Your task to perform on an android device: change notification settings in the gmail app Image 0: 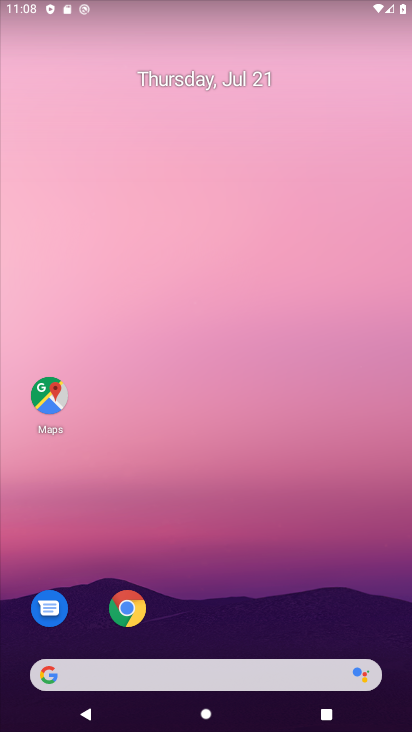
Step 0: drag from (184, 616) to (220, 0)
Your task to perform on an android device: change notification settings in the gmail app Image 1: 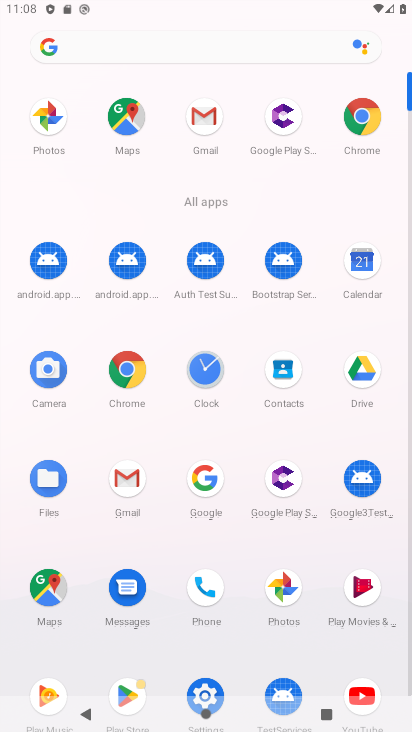
Step 1: click (127, 496)
Your task to perform on an android device: change notification settings in the gmail app Image 2: 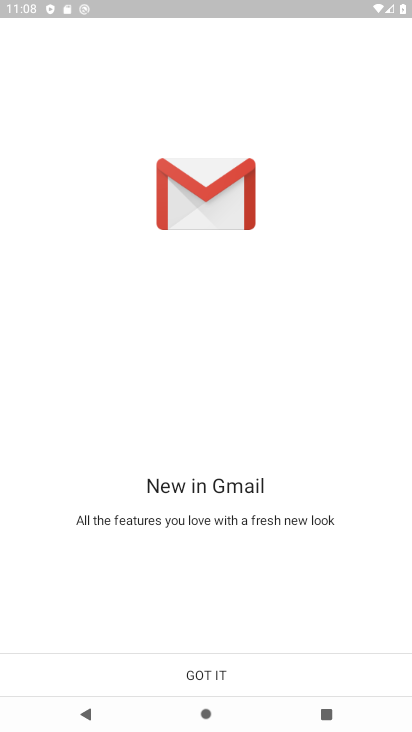
Step 2: click (230, 673)
Your task to perform on an android device: change notification settings in the gmail app Image 3: 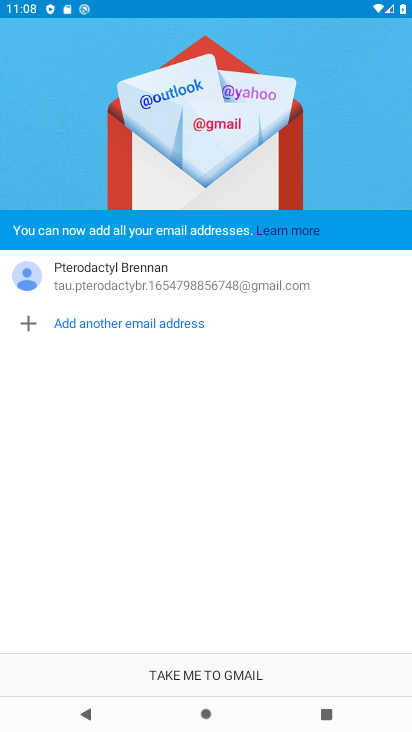
Step 3: click (215, 669)
Your task to perform on an android device: change notification settings in the gmail app Image 4: 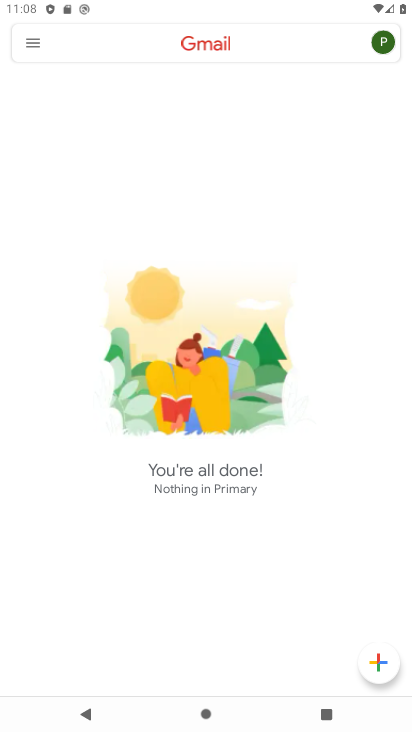
Step 4: click (32, 38)
Your task to perform on an android device: change notification settings in the gmail app Image 5: 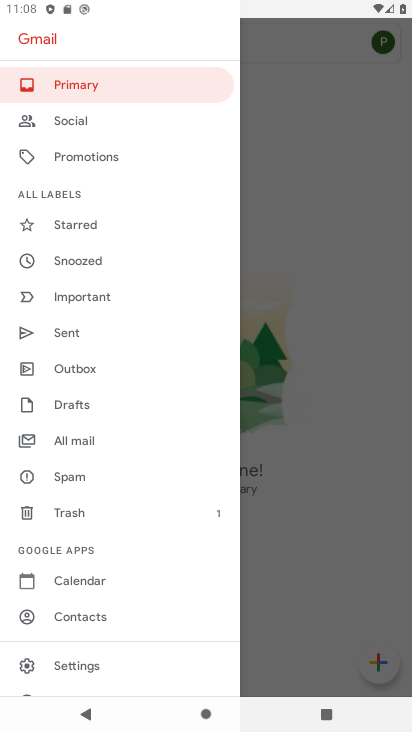
Step 5: click (82, 661)
Your task to perform on an android device: change notification settings in the gmail app Image 6: 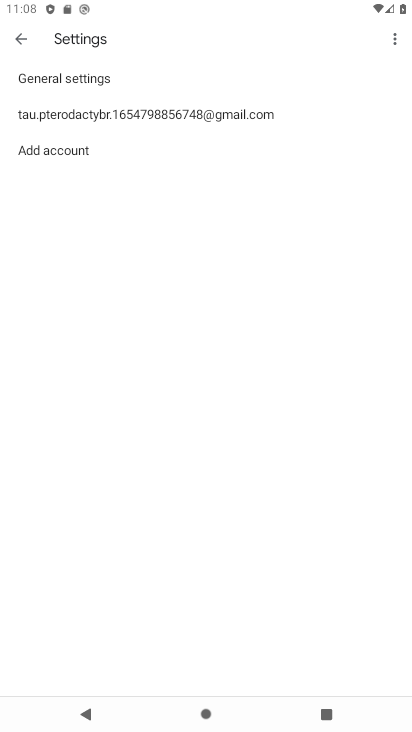
Step 6: click (83, 82)
Your task to perform on an android device: change notification settings in the gmail app Image 7: 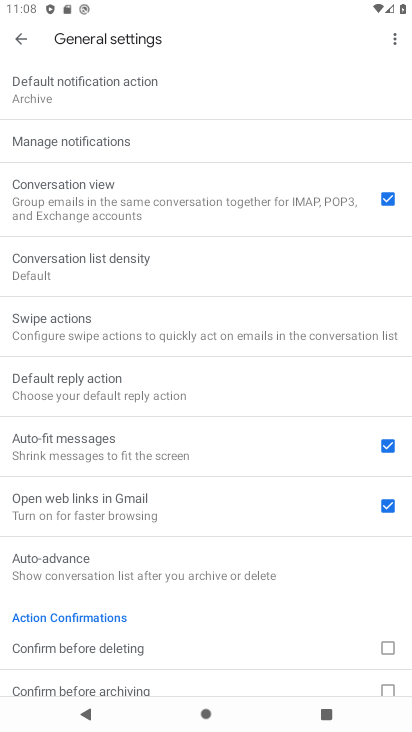
Step 7: click (92, 140)
Your task to perform on an android device: change notification settings in the gmail app Image 8: 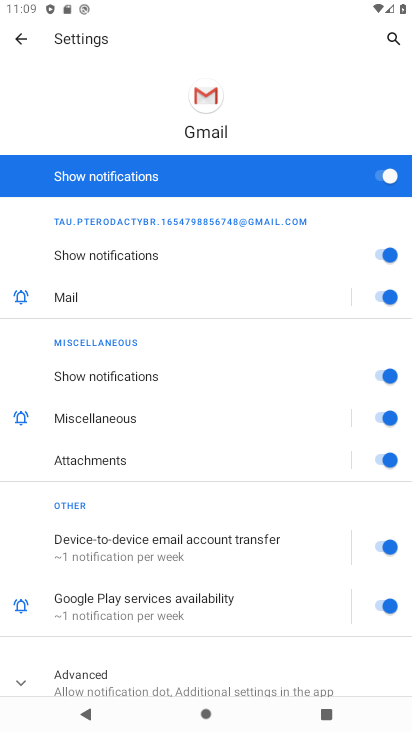
Step 8: click (350, 179)
Your task to perform on an android device: change notification settings in the gmail app Image 9: 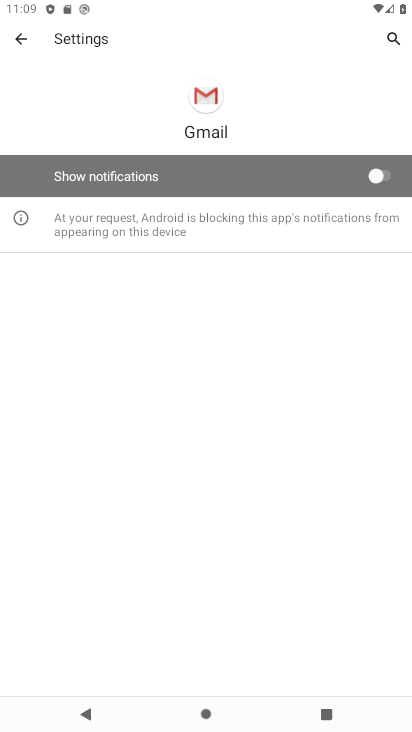
Step 9: task complete